Your task to perform on an android device: check battery use Image 0: 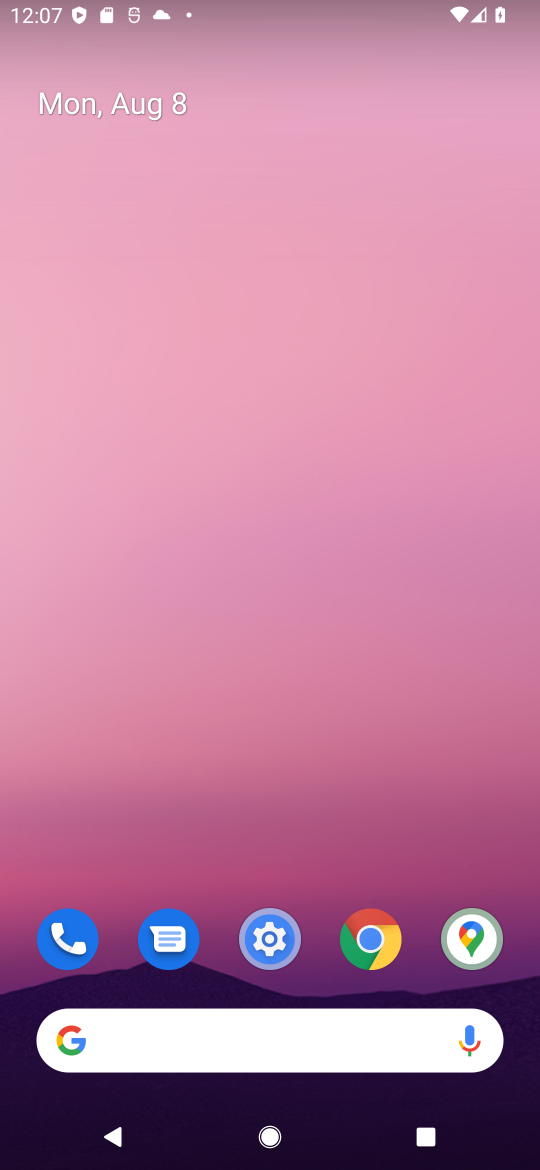
Step 0: click (271, 941)
Your task to perform on an android device: check battery use Image 1: 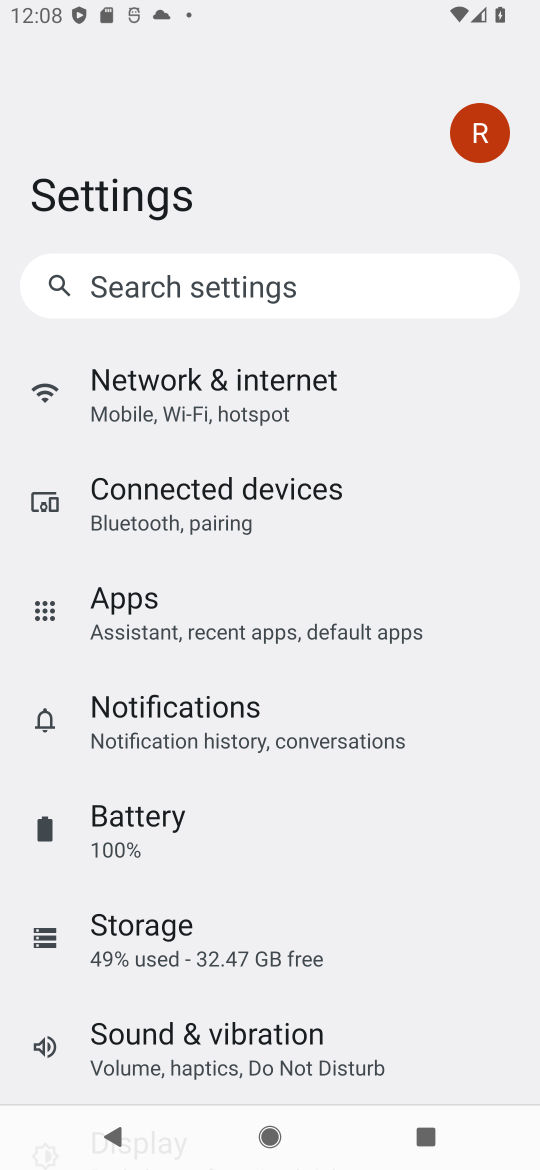
Step 1: click (166, 820)
Your task to perform on an android device: check battery use Image 2: 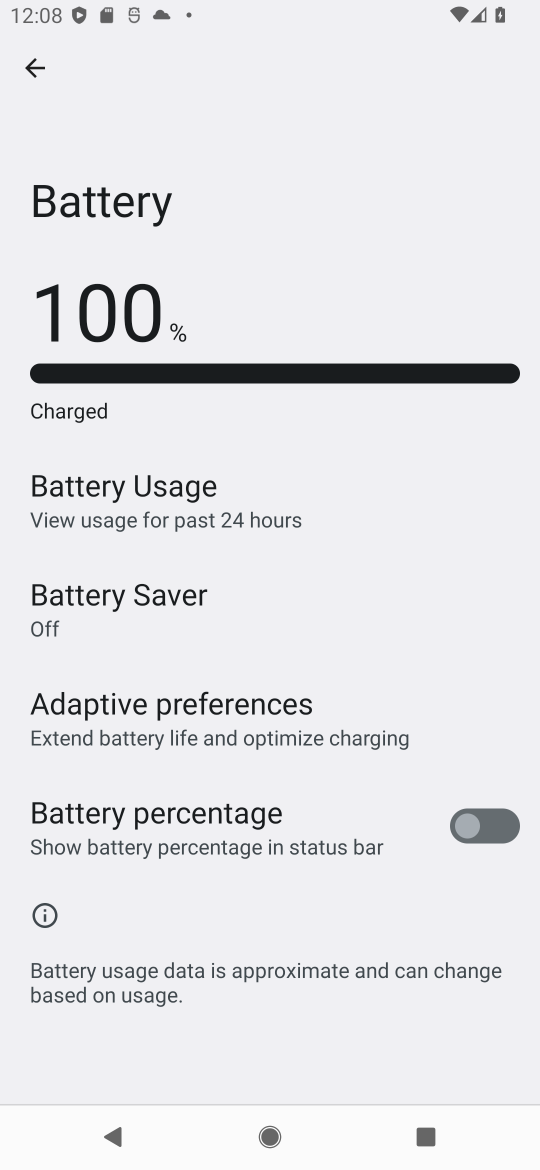
Step 2: click (172, 526)
Your task to perform on an android device: check battery use Image 3: 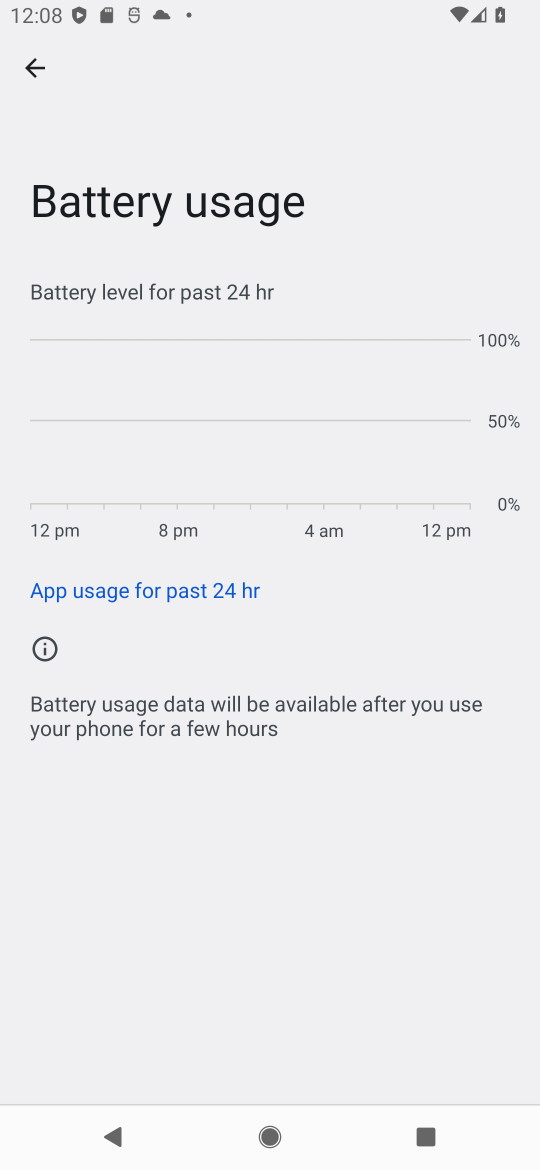
Step 3: task complete